Your task to perform on an android device: Search for Italian restaurants on Maps Image 0: 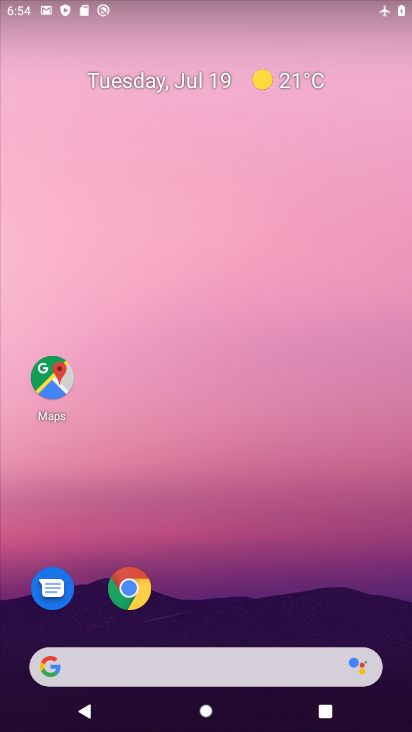
Step 0: drag from (248, 581) to (243, 113)
Your task to perform on an android device: Search for Italian restaurants on Maps Image 1: 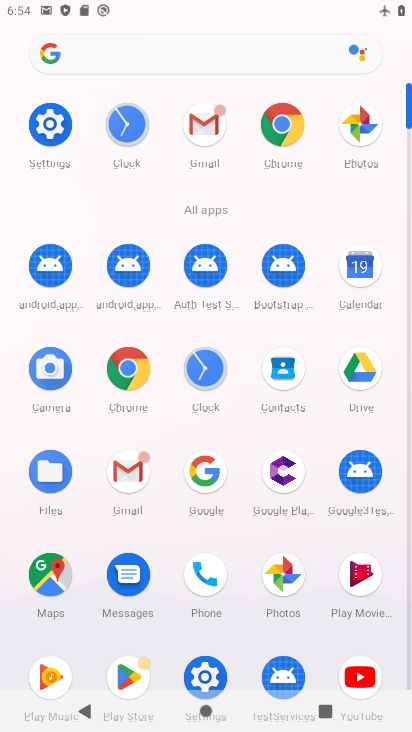
Step 1: click (63, 582)
Your task to perform on an android device: Search for Italian restaurants on Maps Image 2: 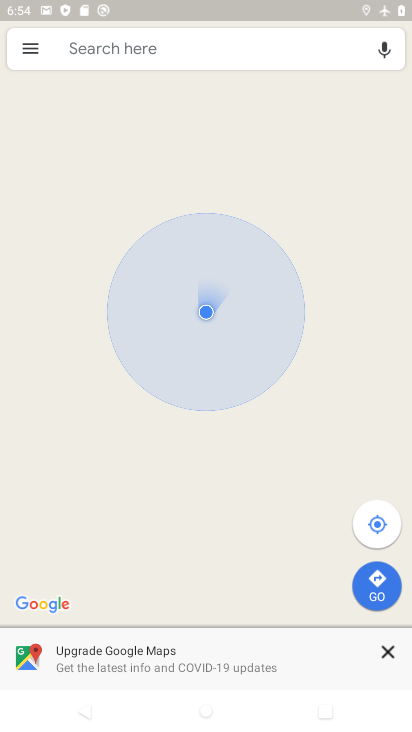
Step 2: click (284, 53)
Your task to perform on an android device: Search for Italian restaurants on Maps Image 3: 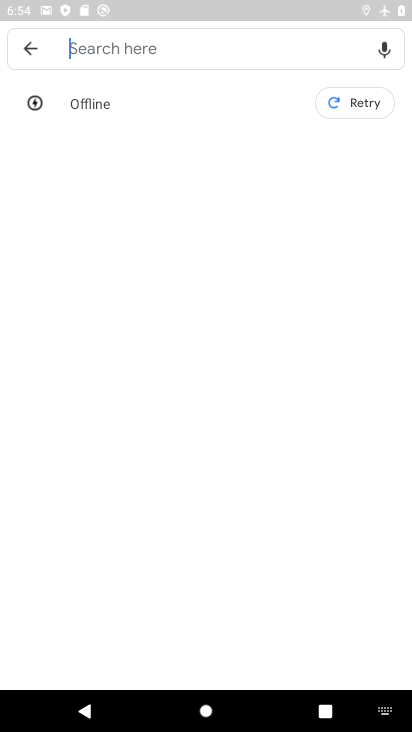
Step 3: type "Italian restaurants"
Your task to perform on an android device: Search for Italian restaurants on Maps Image 4: 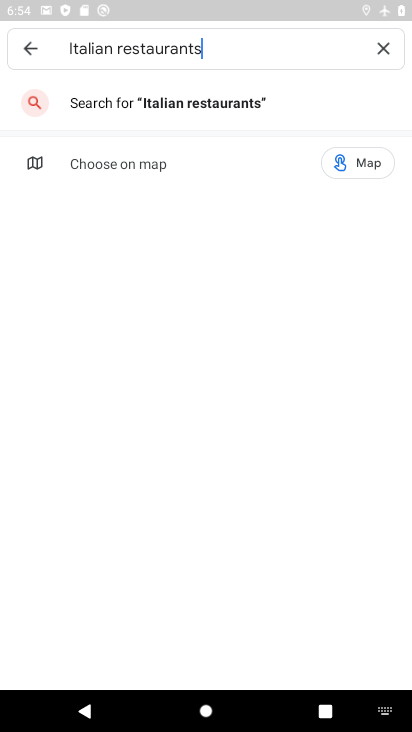
Step 4: type ""
Your task to perform on an android device: Search for Italian restaurants on Maps Image 5: 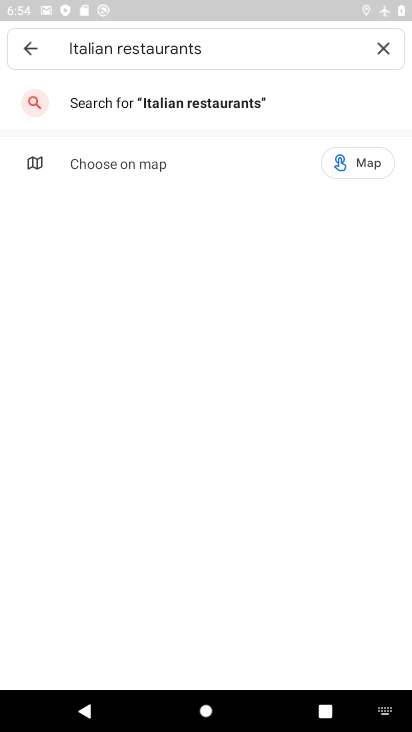
Step 5: drag from (347, 3) to (294, 539)
Your task to perform on an android device: Search for Italian restaurants on Maps Image 6: 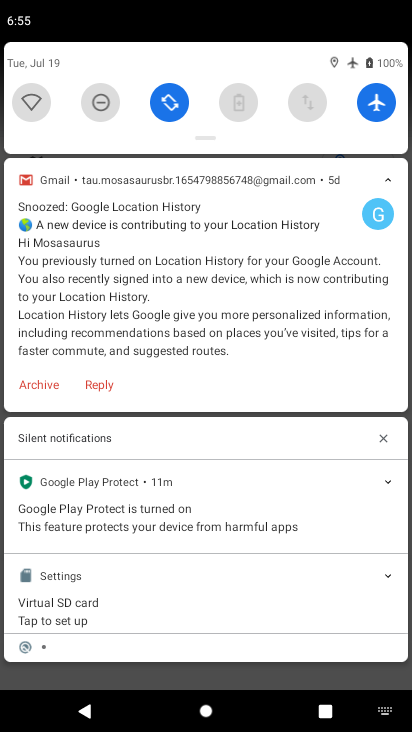
Step 6: click (366, 106)
Your task to perform on an android device: Search for Italian restaurants on Maps Image 7: 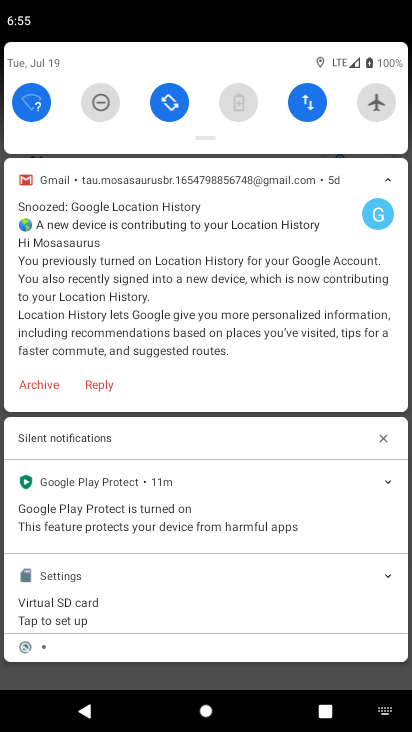
Step 7: click (86, 725)
Your task to perform on an android device: Search for Italian restaurants on Maps Image 8: 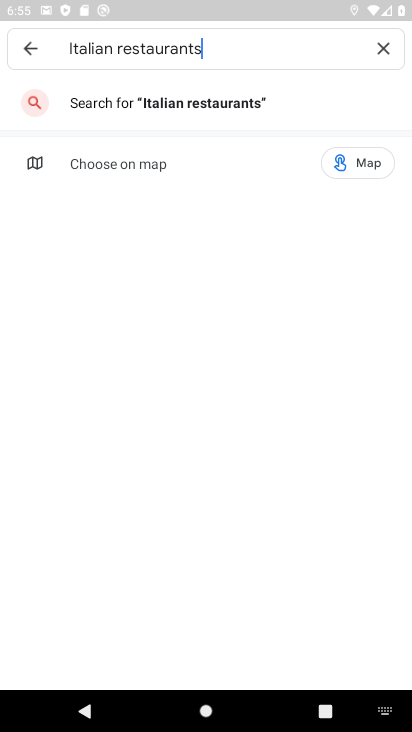
Step 8: click (210, 110)
Your task to perform on an android device: Search for Italian restaurants on Maps Image 9: 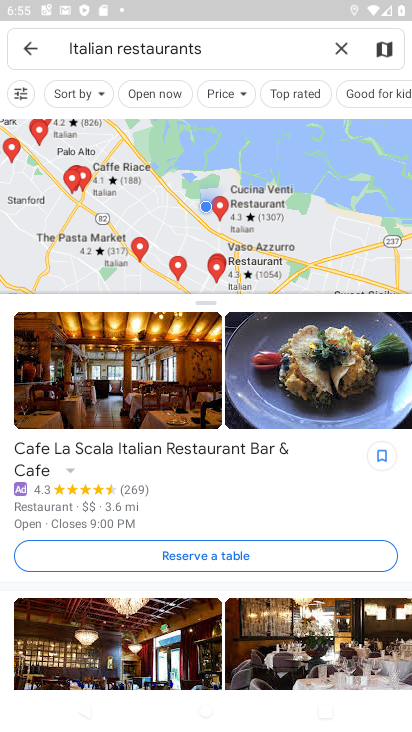
Step 9: task complete